Your task to perform on an android device: toggle translation in the chrome app Image 0: 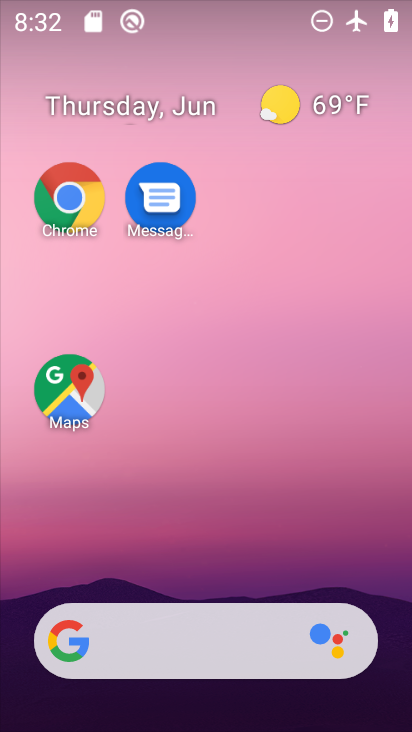
Step 0: click (51, 195)
Your task to perform on an android device: toggle translation in the chrome app Image 1: 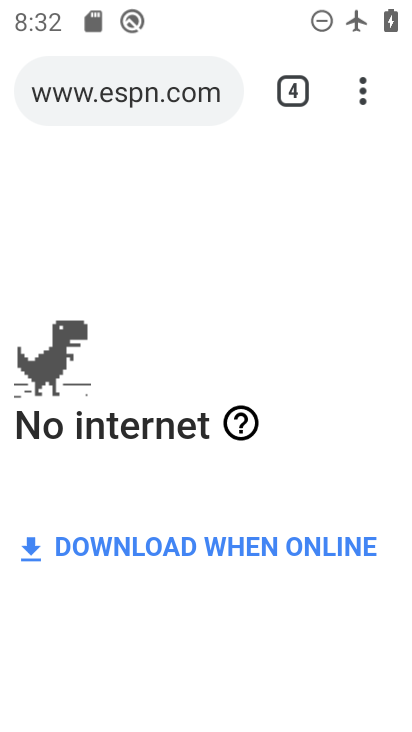
Step 1: click (362, 88)
Your task to perform on an android device: toggle translation in the chrome app Image 2: 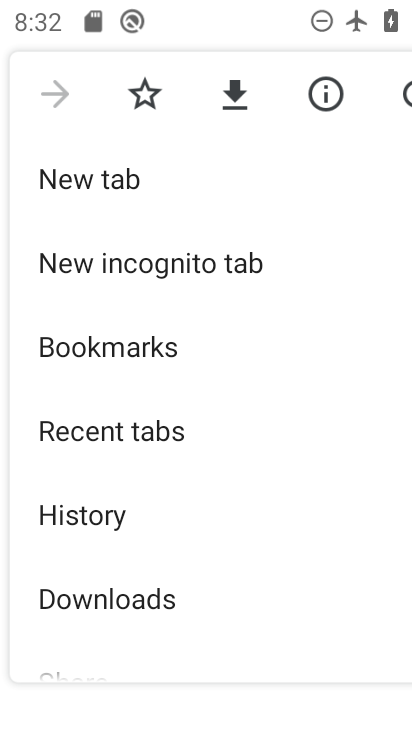
Step 2: drag from (324, 590) to (245, 161)
Your task to perform on an android device: toggle translation in the chrome app Image 3: 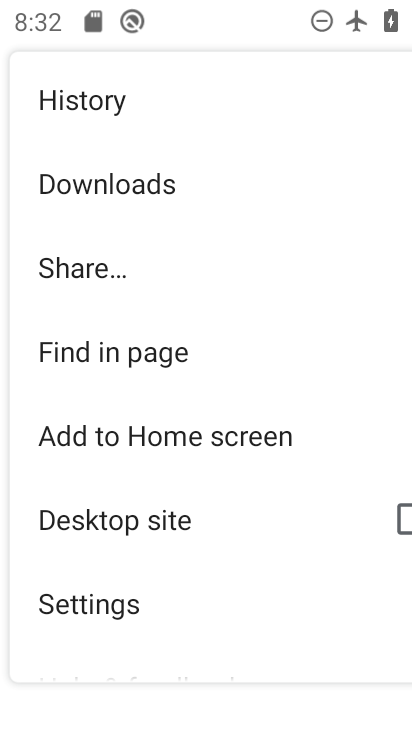
Step 3: click (87, 593)
Your task to perform on an android device: toggle translation in the chrome app Image 4: 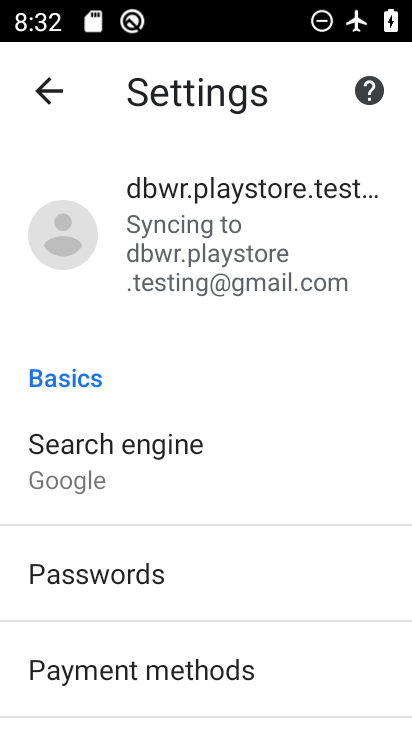
Step 4: drag from (156, 596) to (112, 291)
Your task to perform on an android device: toggle translation in the chrome app Image 5: 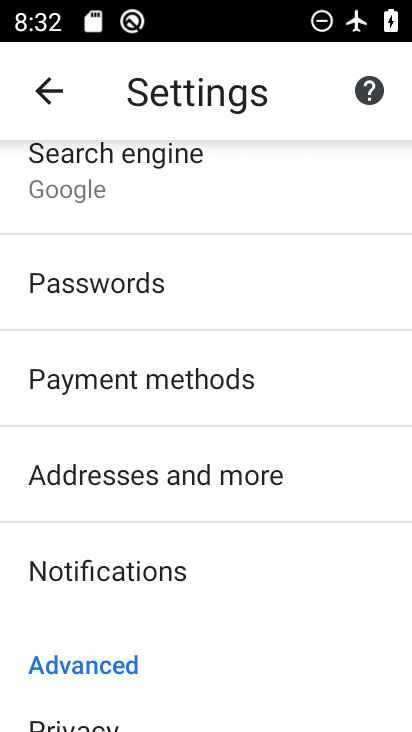
Step 5: drag from (236, 650) to (208, 269)
Your task to perform on an android device: toggle translation in the chrome app Image 6: 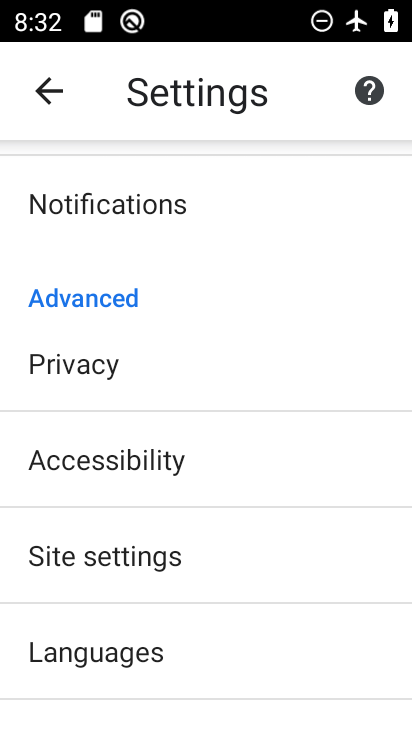
Step 6: click (165, 655)
Your task to perform on an android device: toggle translation in the chrome app Image 7: 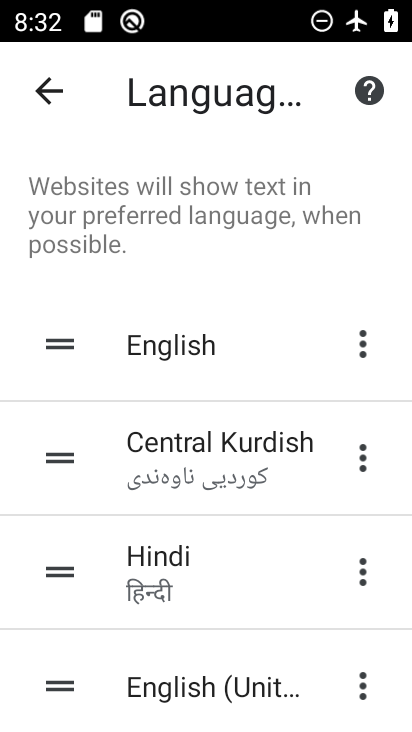
Step 7: drag from (165, 655) to (114, 54)
Your task to perform on an android device: toggle translation in the chrome app Image 8: 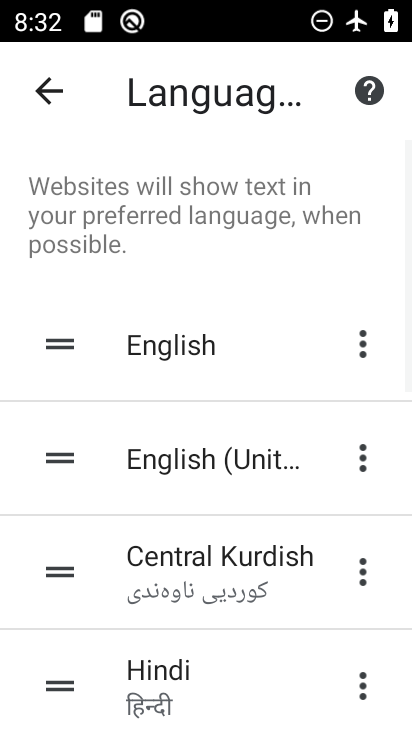
Step 8: drag from (341, 672) to (261, 69)
Your task to perform on an android device: toggle translation in the chrome app Image 9: 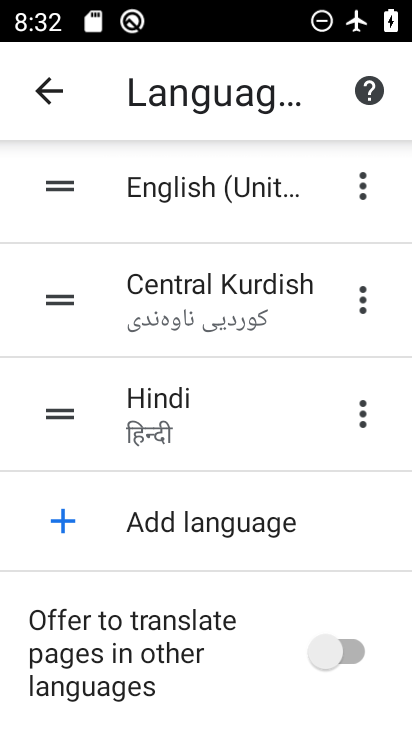
Step 9: click (331, 645)
Your task to perform on an android device: toggle translation in the chrome app Image 10: 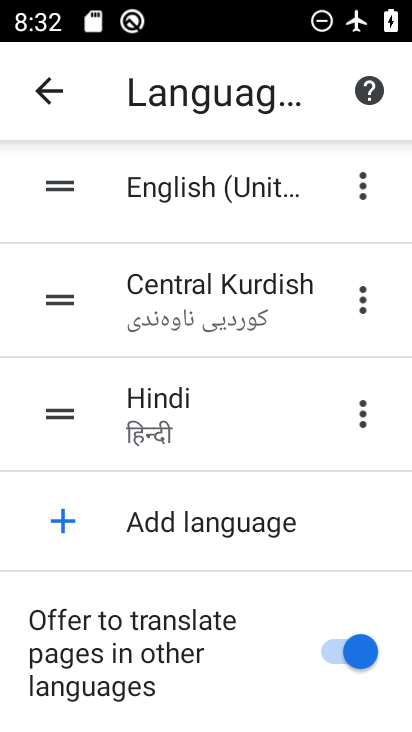
Step 10: task complete